Your task to perform on an android device: change timer sound Image 0: 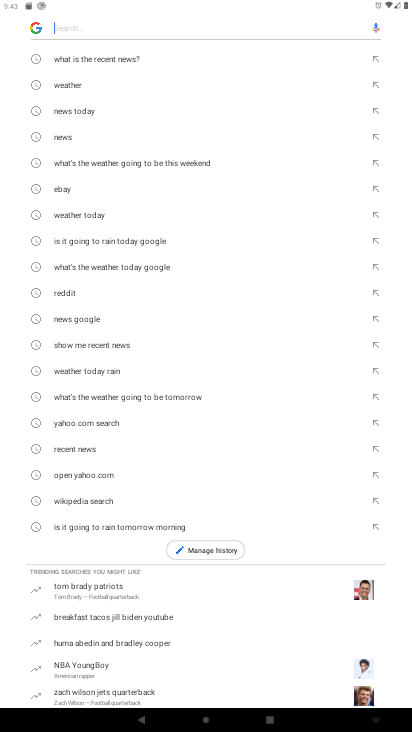
Step 0: press home button
Your task to perform on an android device: change timer sound Image 1: 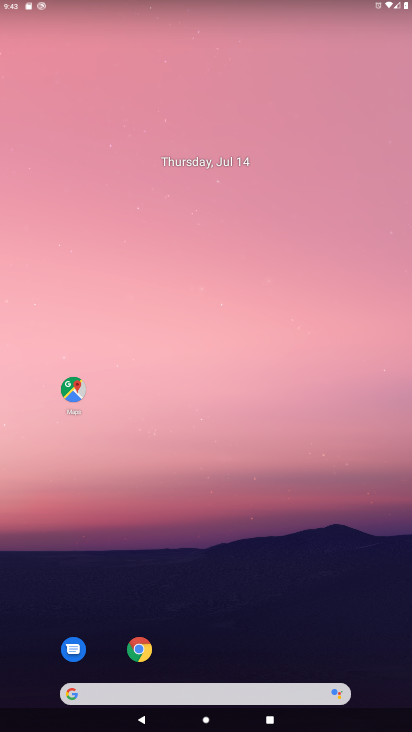
Step 1: drag from (220, 724) to (389, 0)
Your task to perform on an android device: change timer sound Image 2: 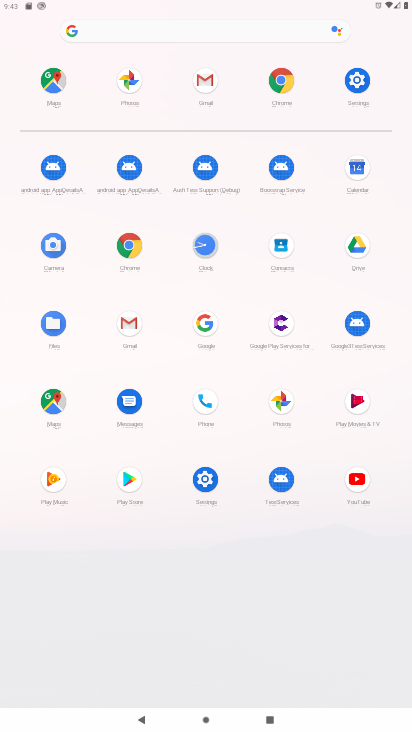
Step 2: click (350, 87)
Your task to perform on an android device: change timer sound Image 3: 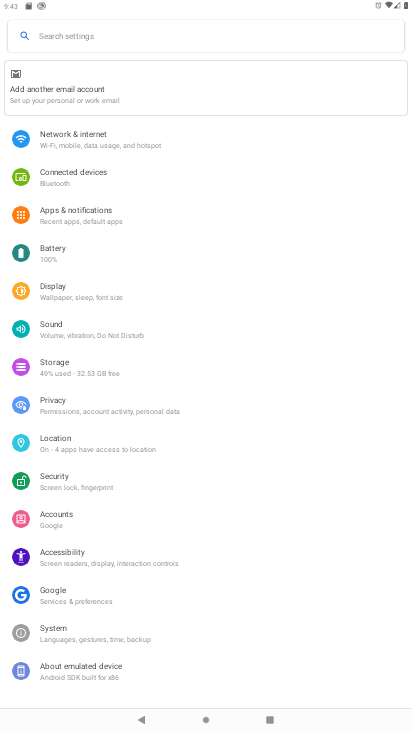
Step 3: press home button
Your task to perform on an android device: change timer sound Image 4: 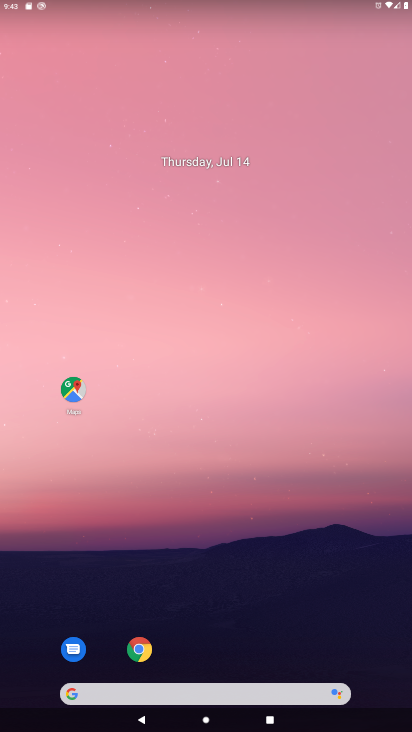
Step 4: drag from (243, 721) to (320, 8)
Your task to perform on an android device: change timer sound Image 5: 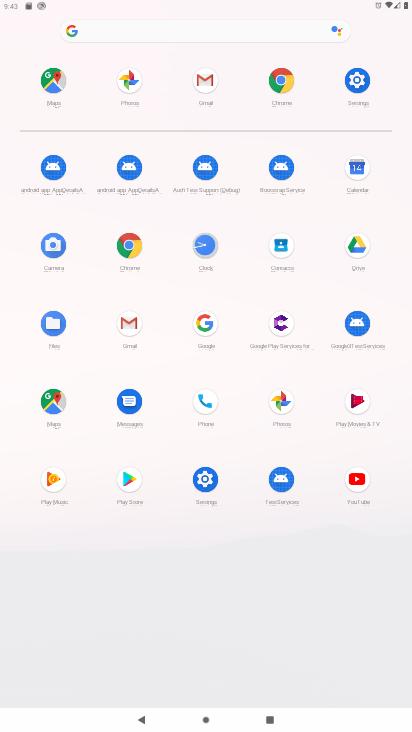
Step 5: click (197, 244)
Your task to perform on an android device: change timer sound Image 6: 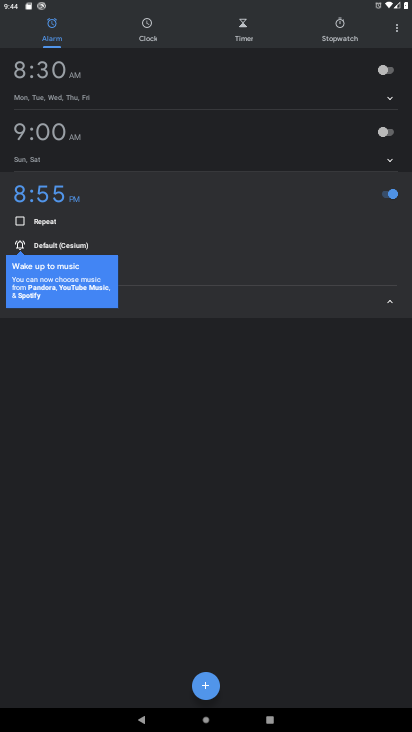
Step 6: click (397, 31)
Your task to perform on an android device: change timer sound Image 7: 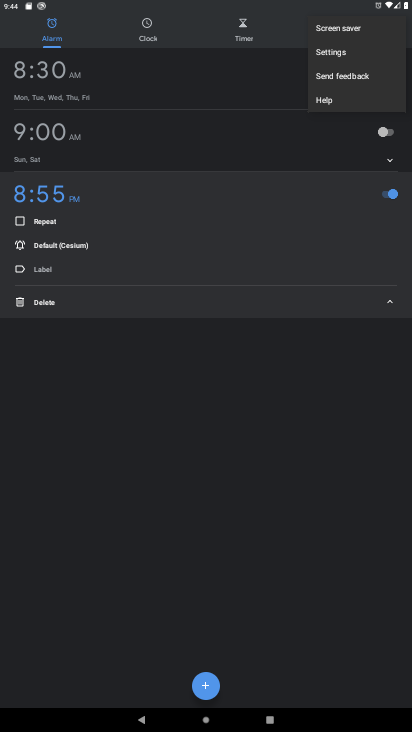
Step 7: click (351, 58)
Your task to perform on an android device: change timer sound Image 8: 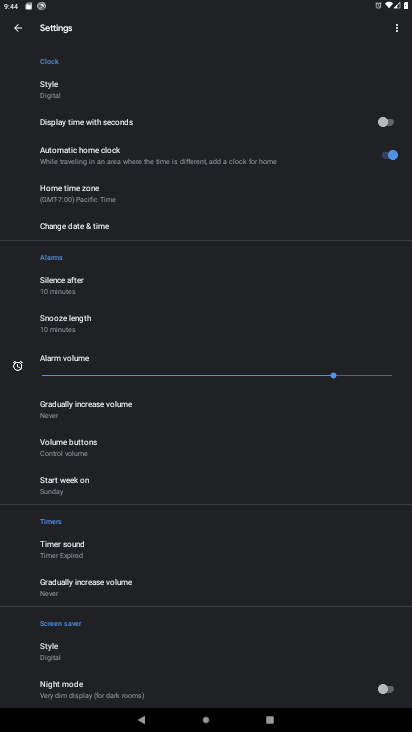
Step 8: click (83, 547)
Your task to perform on an android device: change timer sound Image 9: 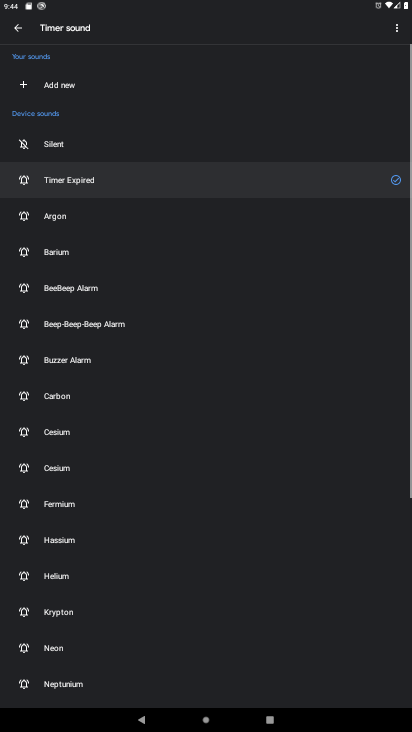
Step 9: click (85, 360)
Your task to perform on an android device: change timer sound Image 10: 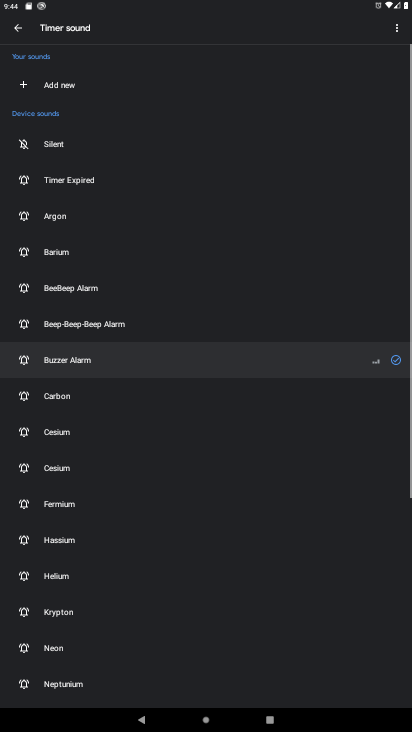
Step 10: task complete